Your task to perform on an android device: create a new album in the google photos Image 0: 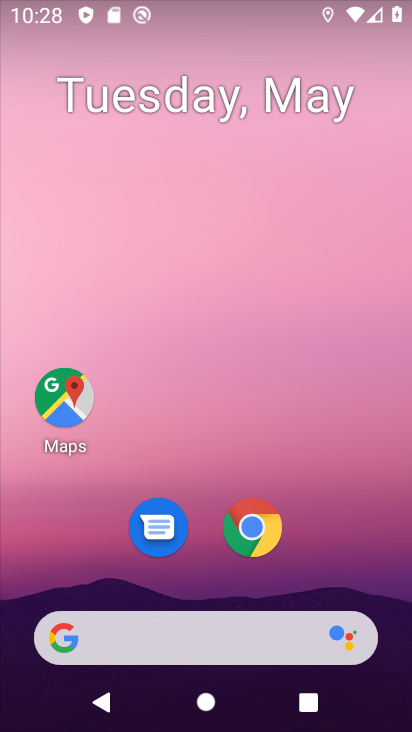
Step 0: drag from (190, 577) to (194, 110)
Your task to perform on an android device: create a new album in the google photos Image 1: 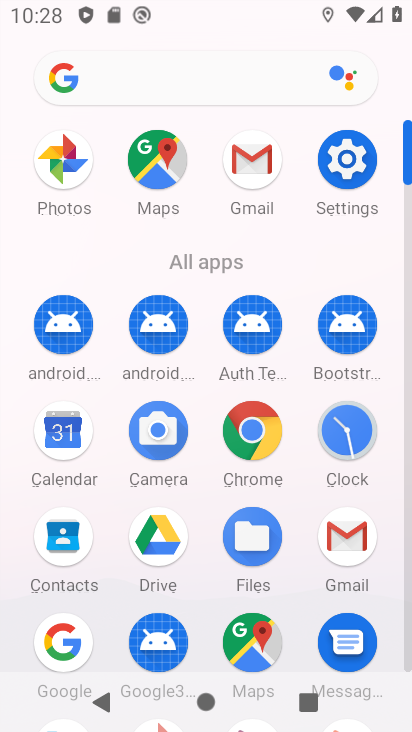
Step 1: drag from (196, 562) to (204, 247)
Your task to perform on an android device: create a new album in the google photos Image 2: 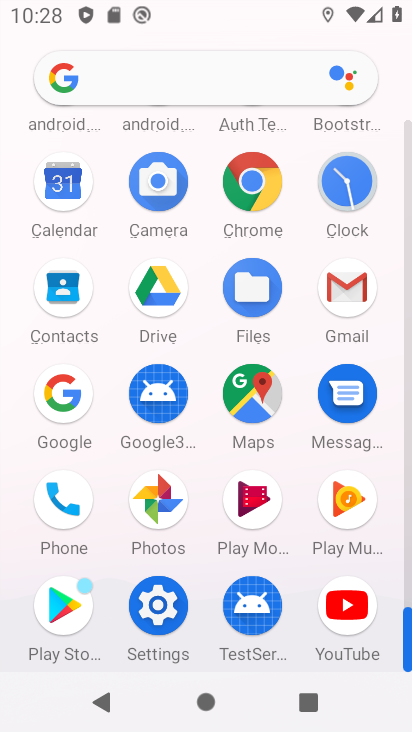
Step 2: click (148, 492)
Your task to perform on an android device: create a new album in the google photos Image 3: 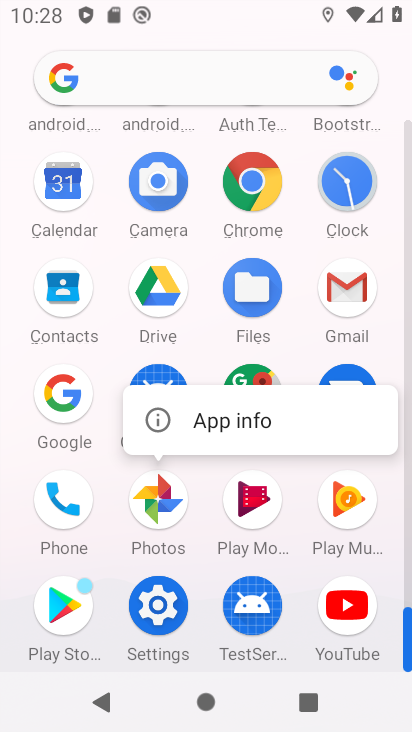
Step 3: click (248, 418)
Your task to perform on an android device: create a new album in the google photos Image 4: 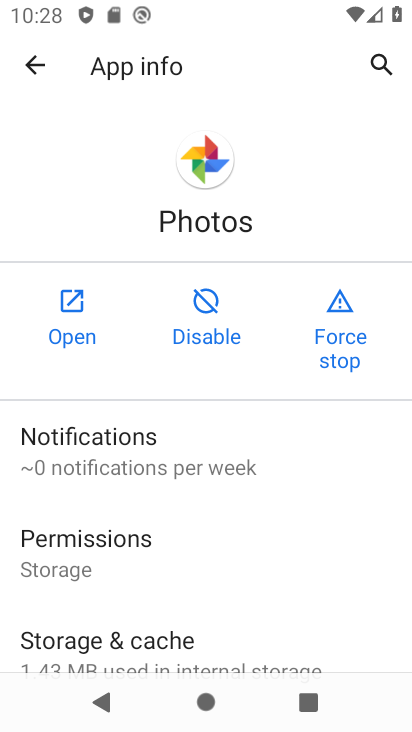
Step 4: click (67, 333)
Your task to perform on an android device: create a new album in the google photos Image 5: 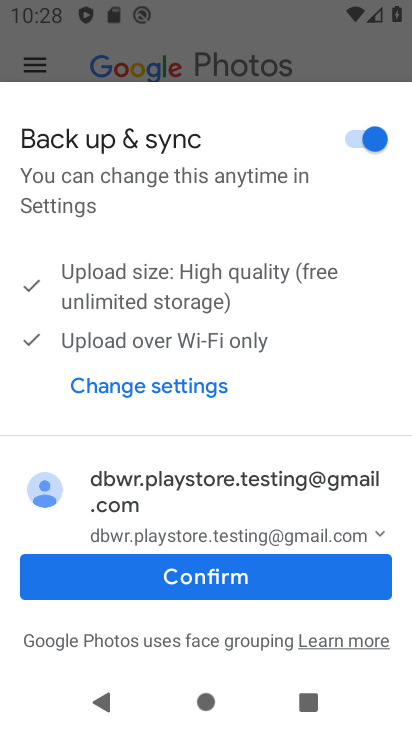
Step 5: click (209, 569)
Your task to perform on an android device: create a new album in the google photos Image 6: 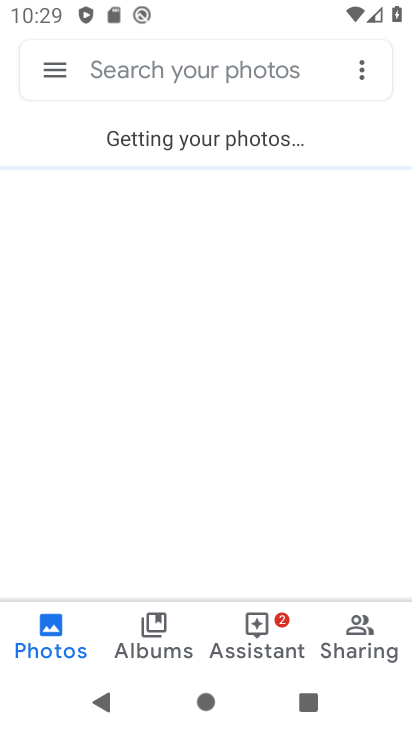
Step 6: drag from (244, 536) to (224, 176)
Your task to perform on an android device: create a new album in the google photos Image 7: 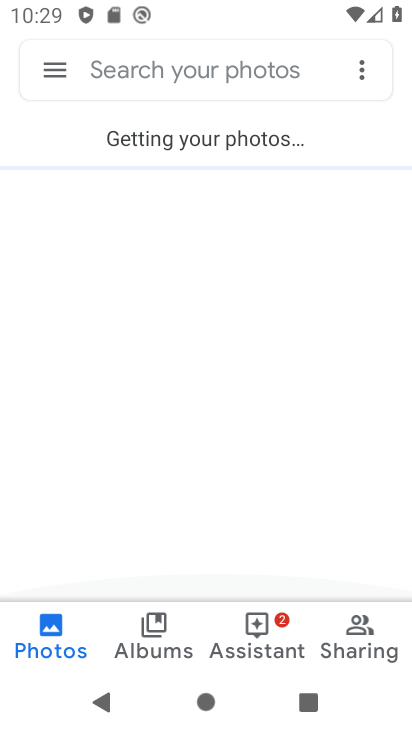
Step 7: drag from (213, 127) to (260, 466)
Your task to perform on an android device: create a new album in the google photos Image 8: 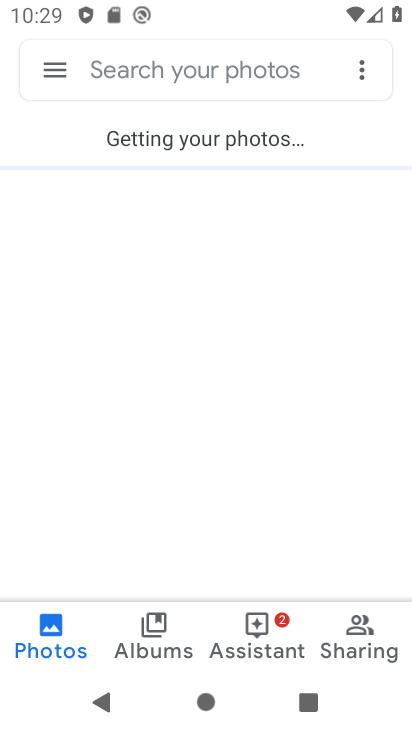
Step 8: drag from (254, 443) to (300, 169)
Your task to perform on an android device: create a new album in the google photos Image 9: 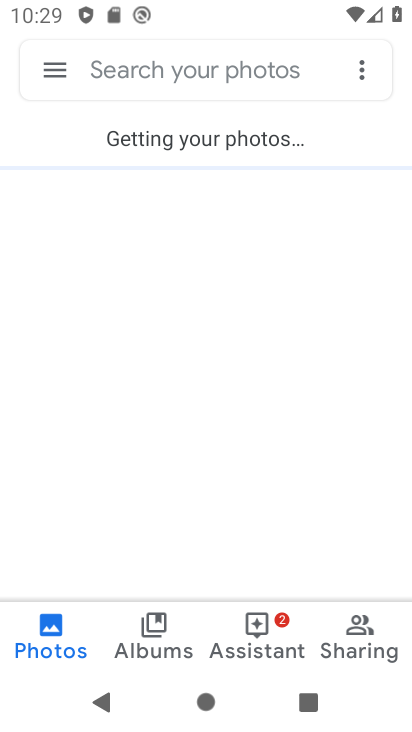
Step 9: drag from (229, 533) to (218, 330)
Your task to perform on an android device: create a new album in the google photos Image 10: 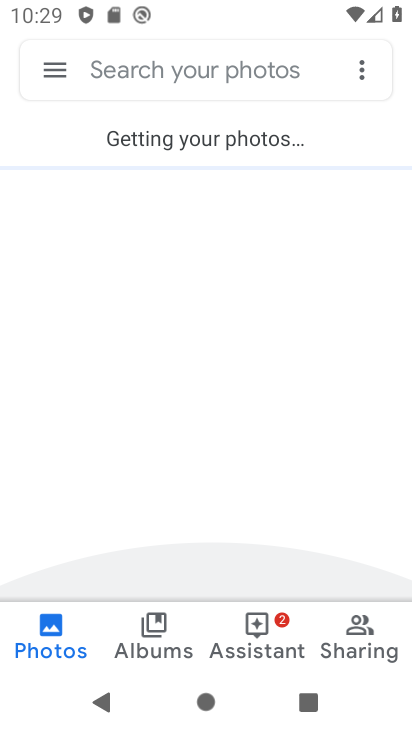
Step 10: drag from (204, 249) to (235, 627)
Your task to perform on an android device: create a new album in the google photos Image 11: 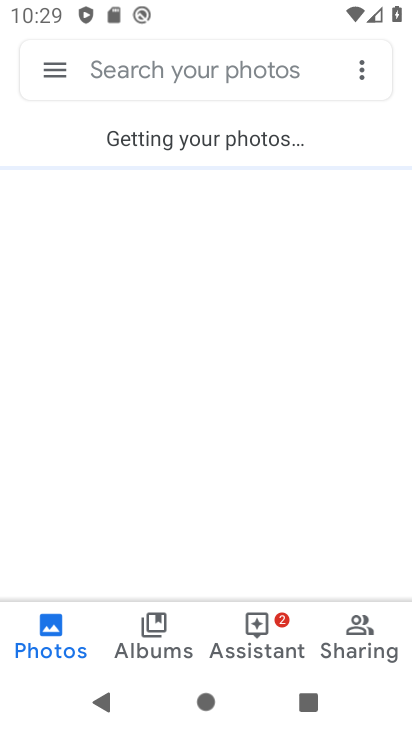
Step 11: click (362, 632)
Your task to perform on an android device: create a new album in the google photos Image 12: 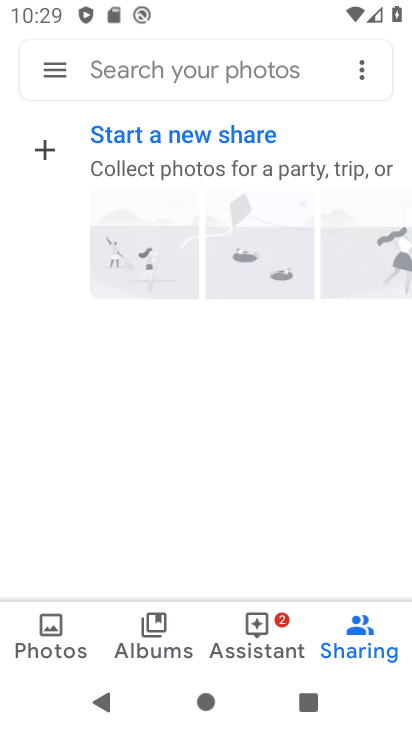
Step 12: click (155, 630)
Your task to perform on an android device: create a new album in the google photos Image 13: 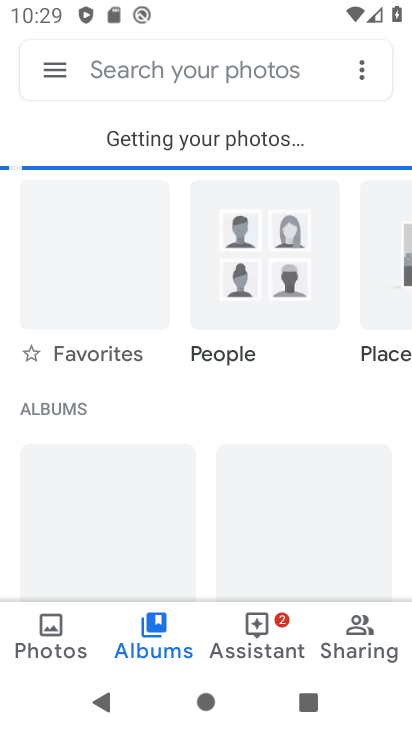
Step 13: drag from (164, 525) to (227, 323)
Your task to perform on an android device: create a new album in the google photos Image 14: 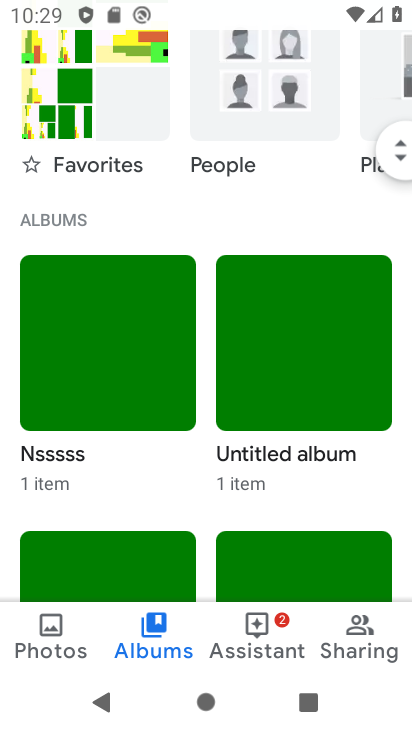
Step 14: drag from (211, 436) to (211, 235)
Your task to perform on an android device: create a new album in the google photos Image 15: 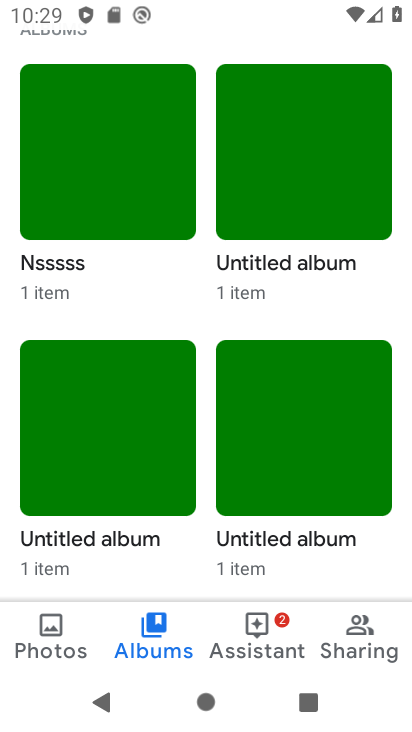
Step 15: drag from (217, 278) to (223, 641)
Your task to perform on an android device: create a new album in the google photos Image 16: 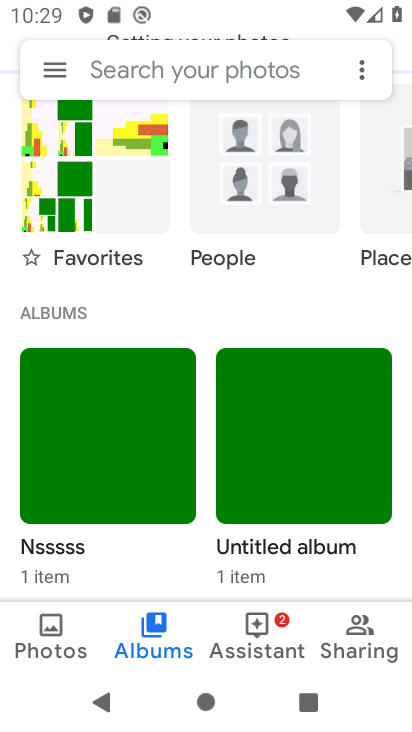
Step 16: drag from (209, 525) to (209, 349)
Your task to perform on an android device: create a new album in the google photos Image 17: 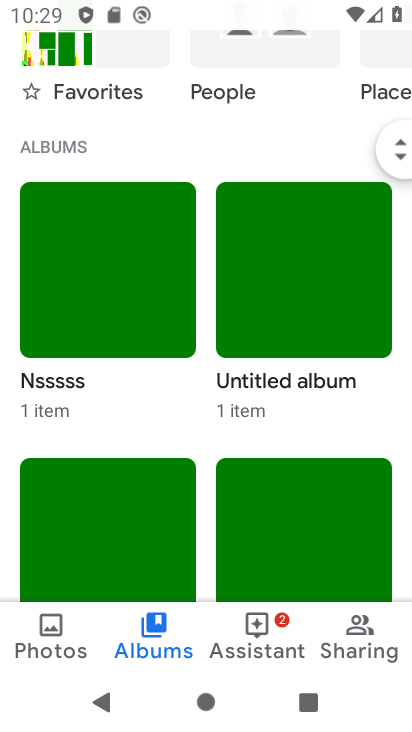
Step 17: drag from (198, 270) to (263, 718)
Your task to perform on an android device: create a new album in the google photos Image 18: 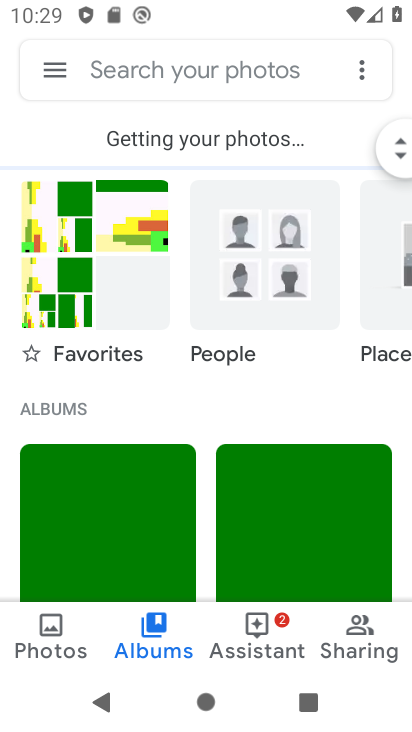
Step 18: click (367, 629)
Your task to perform on an android device: create a new album in the google photos Image 19: 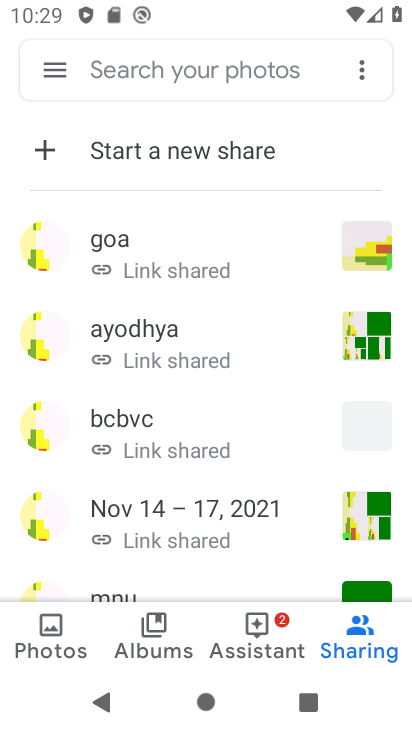
Step 19: click (155, 622)
Your task to perform on an android device: create a new album in the google photos Image 20: 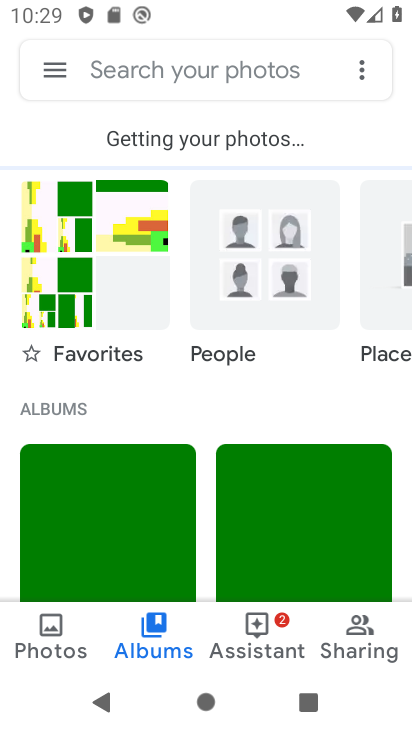
Step 20: drag from (147, 477) to (263, 52)
Your task to perform on an android device: create a new album in the google photos Image 21: 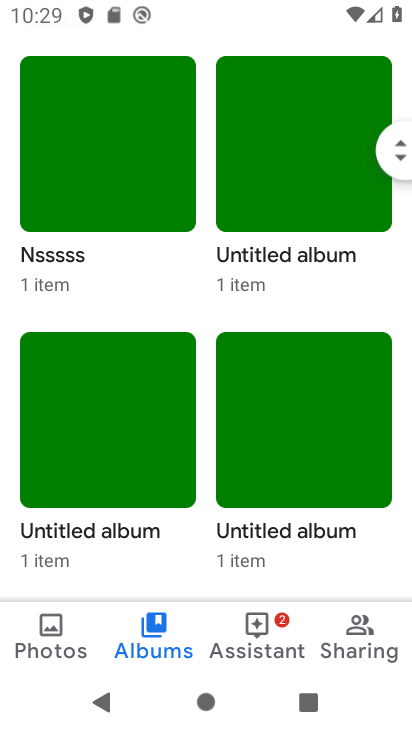
Step 21: drag from (198, 382) to (216, 126)
Your task to perform on an android device: create a new album in the google photos Image 22: 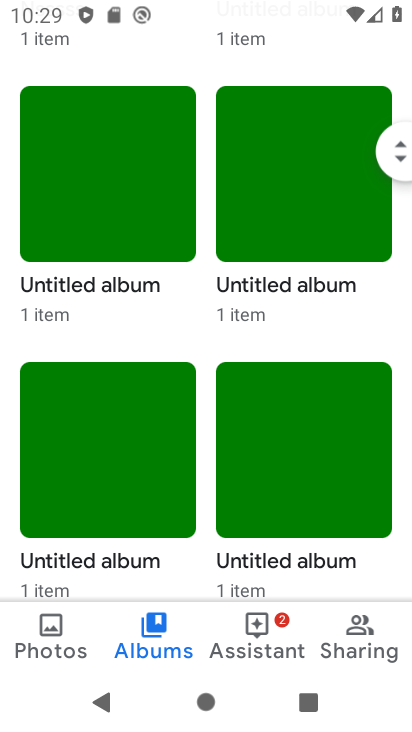
Step 22: drag from (205, 80) to (186, 632)
Your task to perform on an android device: create a new album in the google photos Image 23: 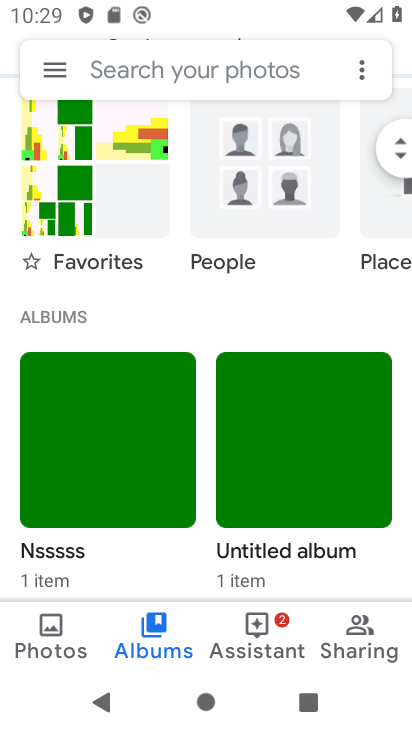
Step 23: drag from (199, 535) to (213, 108)
Your task to perform on an android device: create a new album in the google photos Image 24: 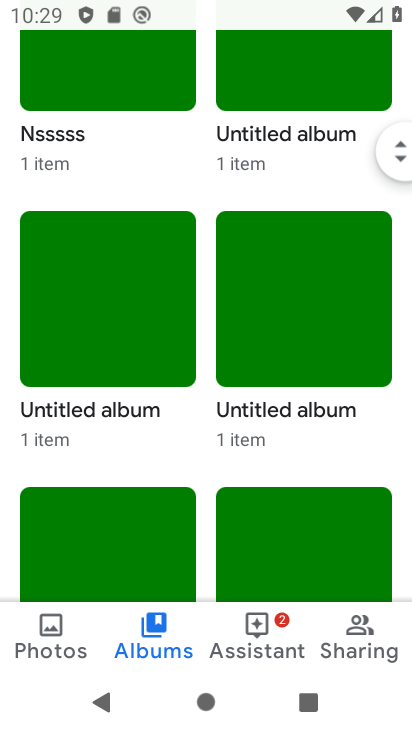
Step 24: drag from (204, 506) to (237, 46)
Your task to perform on an android device: create a new album in the google photos Image 25: 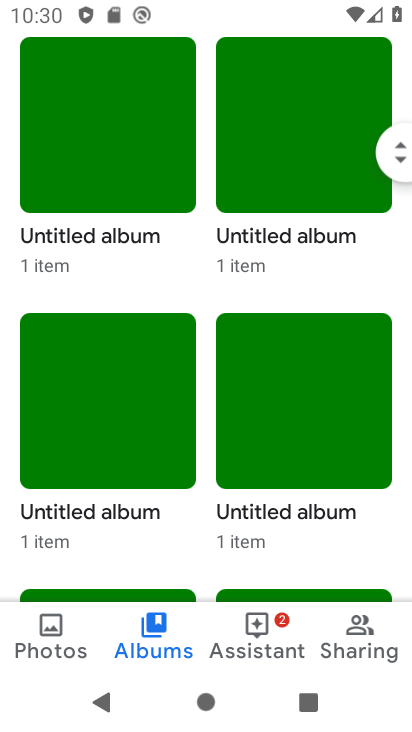
Step 25: click (378, 643)
Your task to perform on an android device: create a new album in the google photos Image 26: 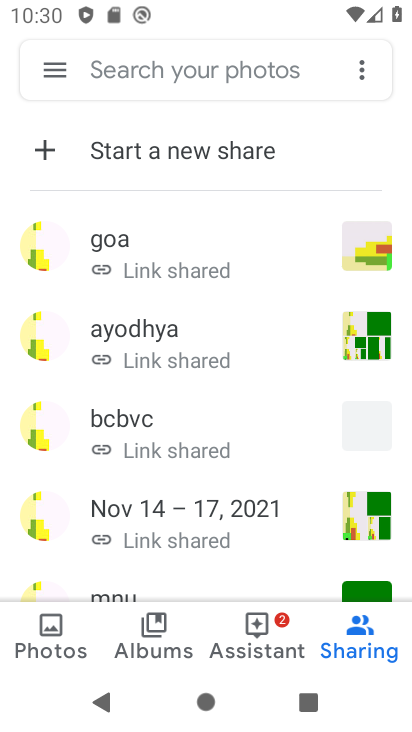
Step 26: click (40, 155)
Your task to perform on an android device: create a new album in the google photos Image 27: 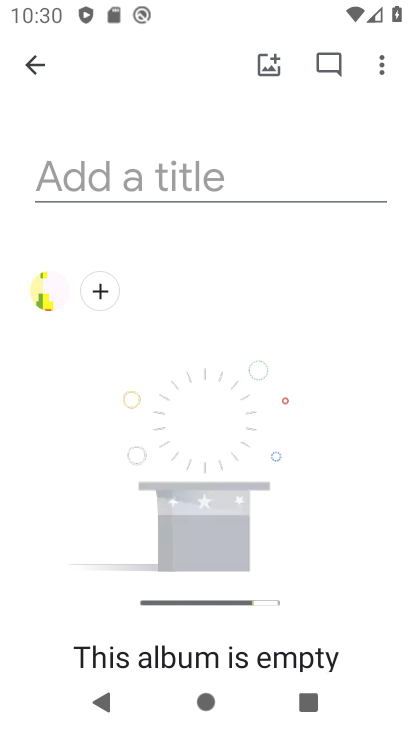
Step 27: click (141, 173)
Your task to perform on an android device: create a new album in the google photos Image 28: 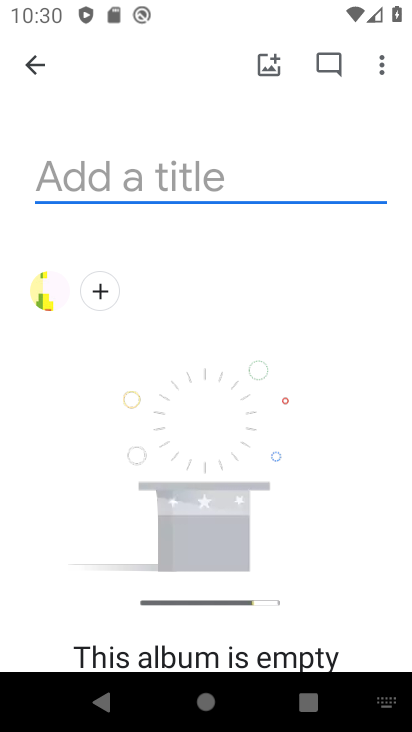
Step 28: click (71, 153)
Your task to perform on an android device: create a new album in the google photos Image 29: 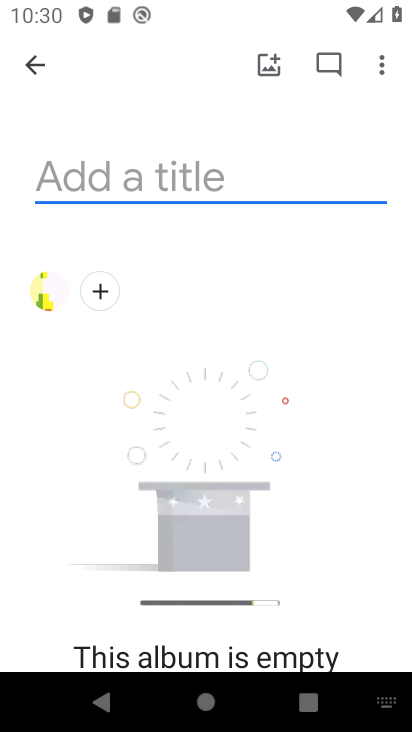
Step 29: type "nhjj"
Your task to perform on an android device: create a new album in the google photos Image 30: 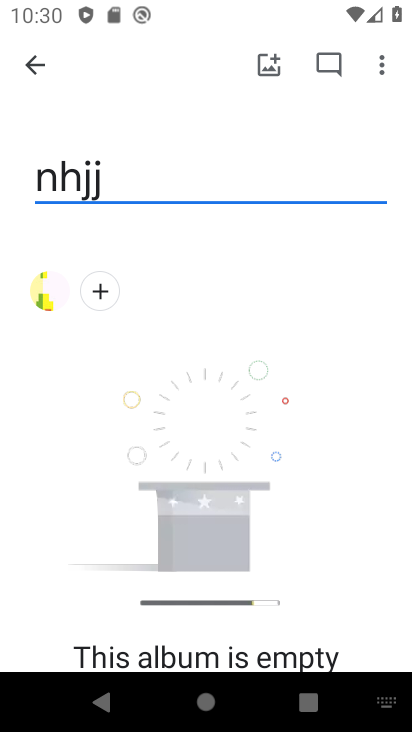
Step 30: click (106, 283)
Your task to perform on an android device: create a new album in the google photos Image 31: 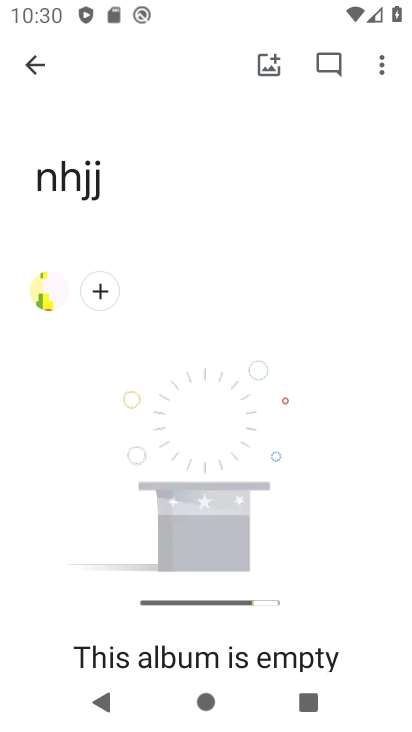
Step 31: click (101, 296)
Your task to perform on an android device: create a new album in the google photos Image 32: 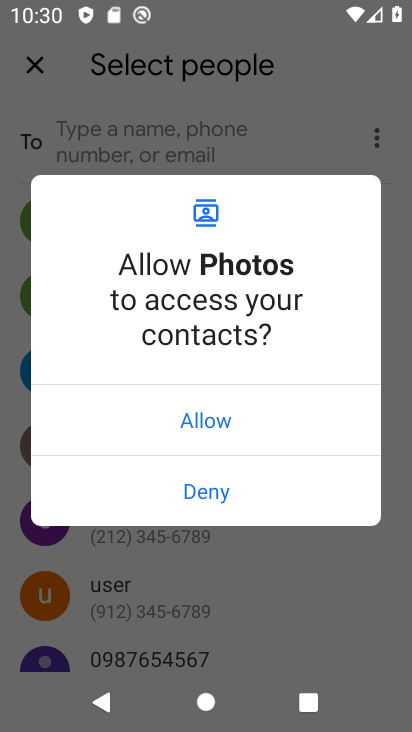
Step 32: click (208, 409)
Your task to perform on an android device: create a new album in the google photos Image 33: 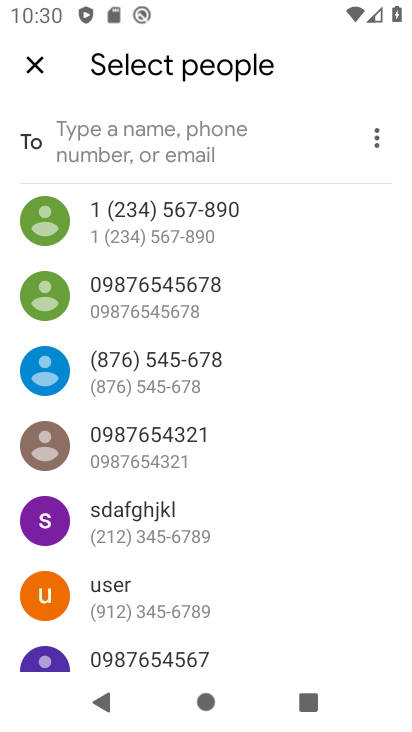
Step 33: click (42, 64)
Your task to perform on an android device: create a new album in the google photos Image 34: 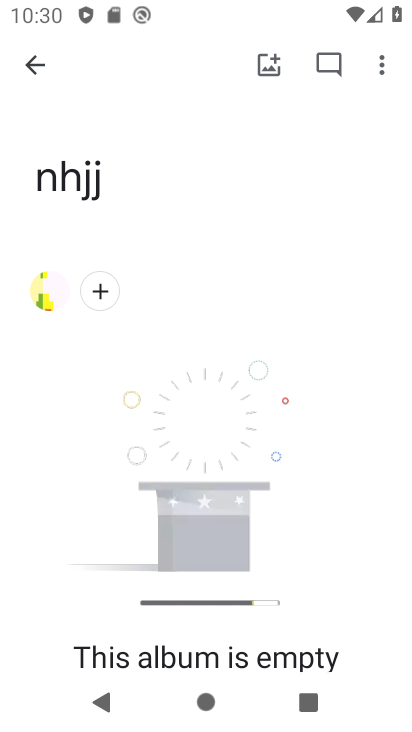
Step 34: click (60, 292)
Your task to perform on an android device: create a new album in the google photos Image 35: 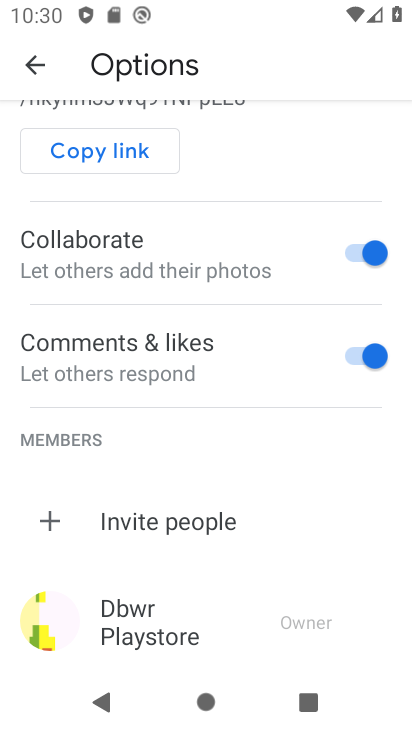
Step 35: task complete